Your task to perform on an android device: check out phone information Image 0: 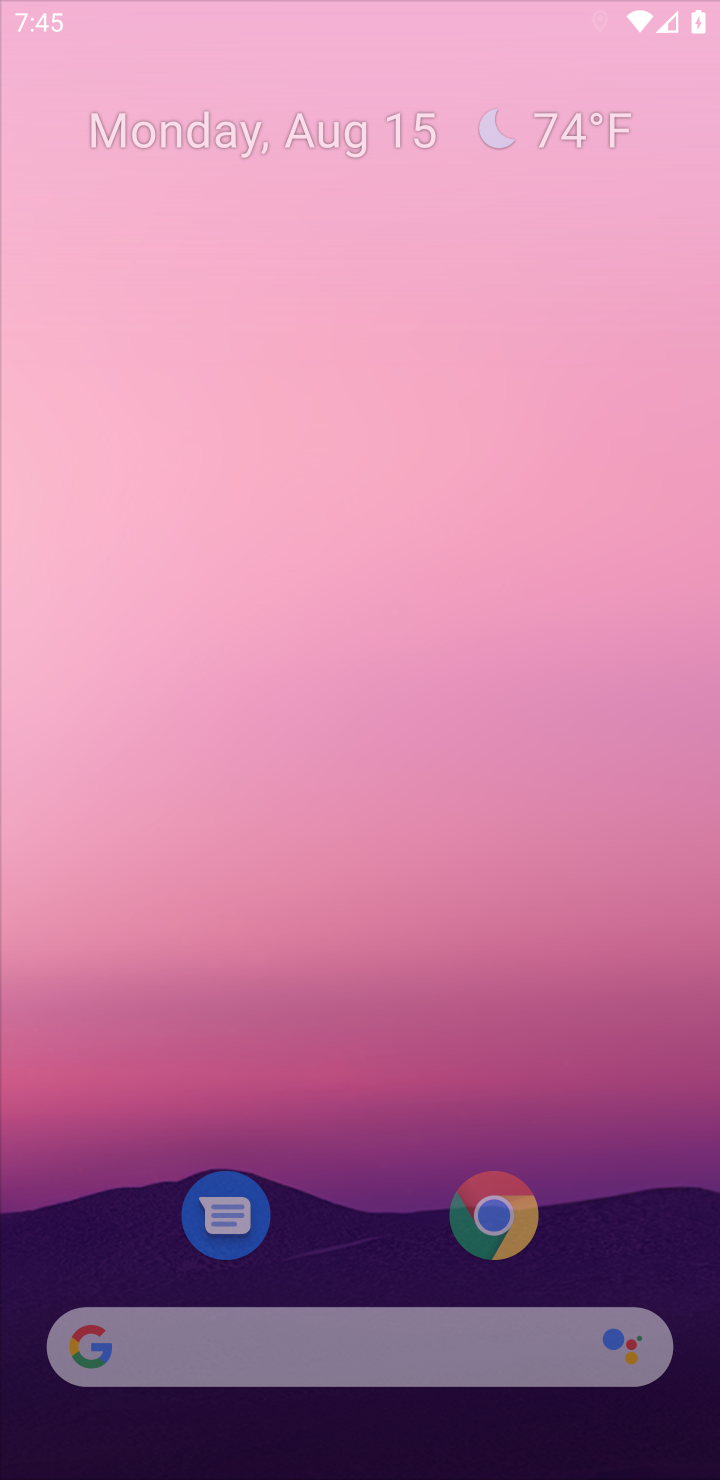
Step 0: press home button
Your task to perform on an android device: check out phone information Image 1: 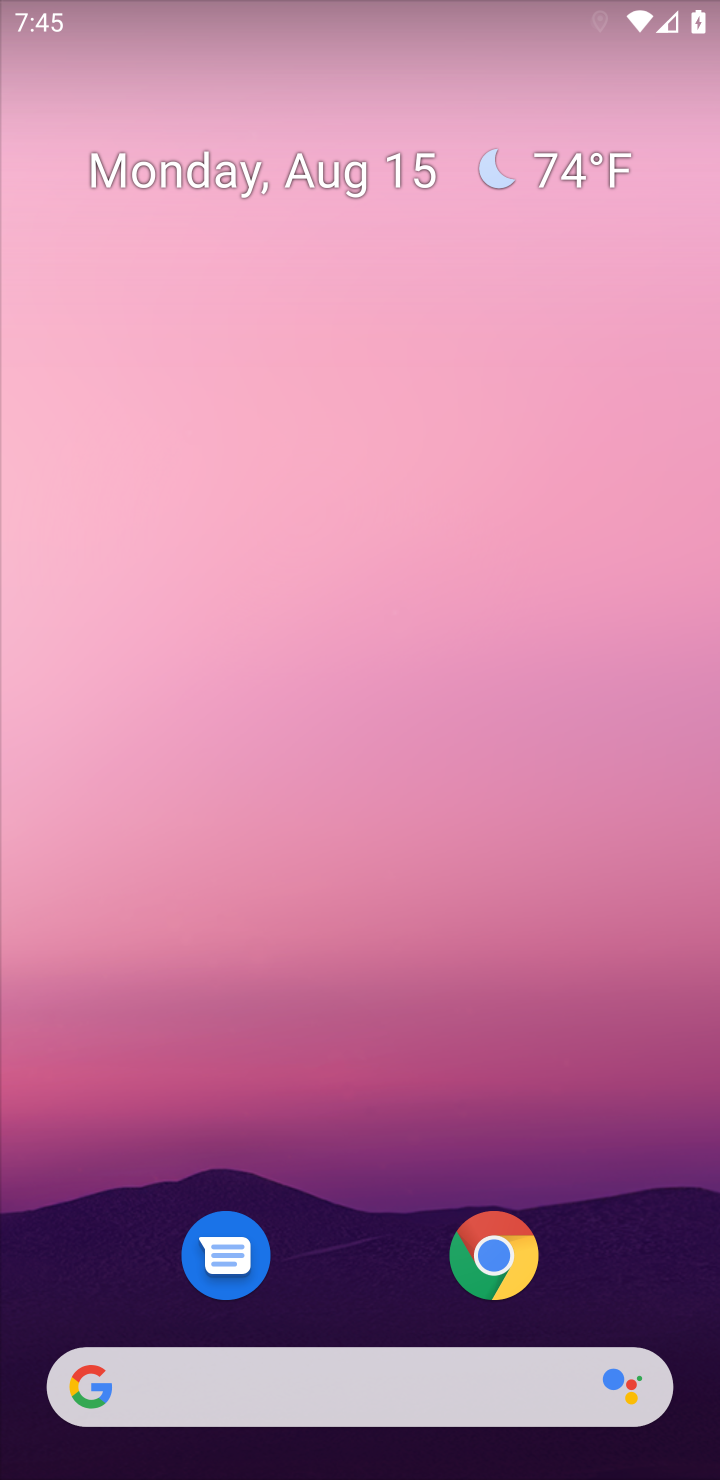
Step 1: drag from (366, 1232) to (352, 228)
Your task to perform on an android device: check out phone information Image 2: 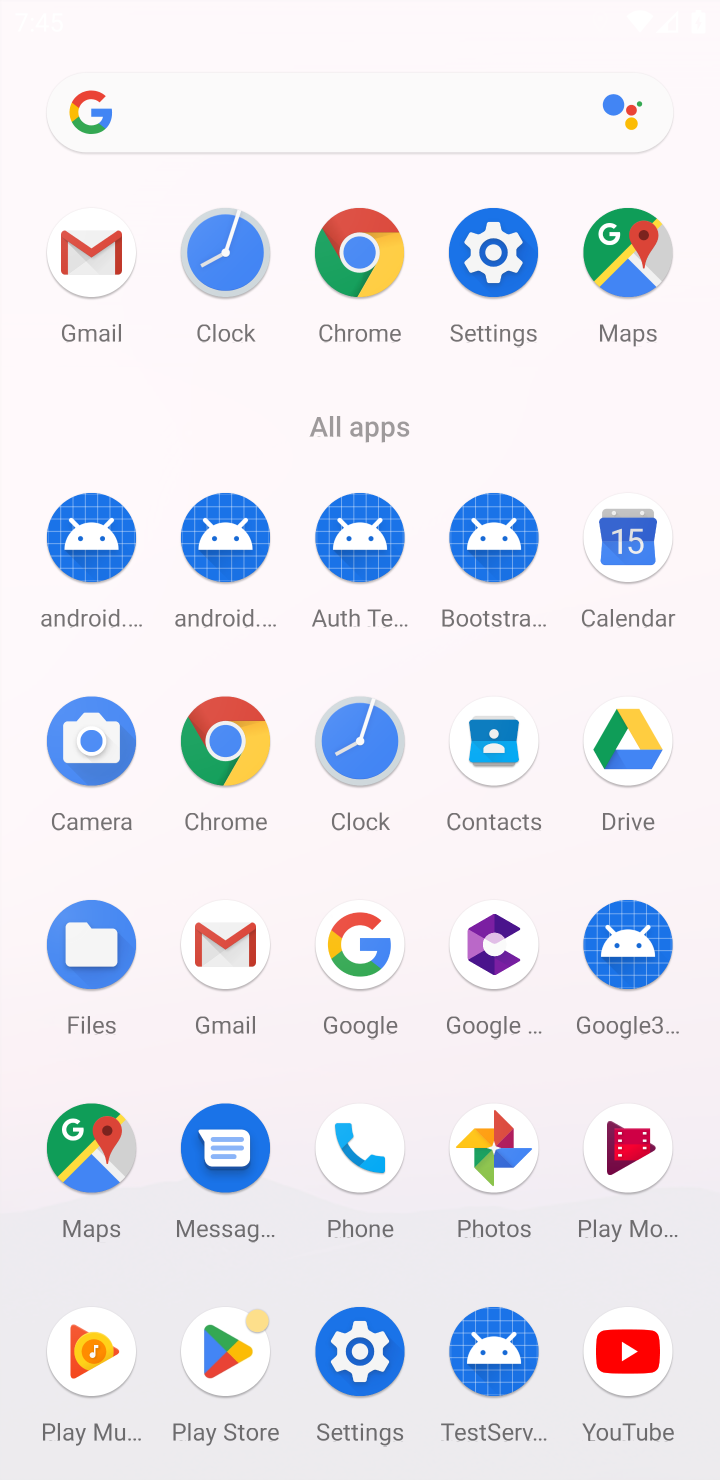
Step 2: click (490, 236)
Your task to perform on an android device: check out phone information Image 3: 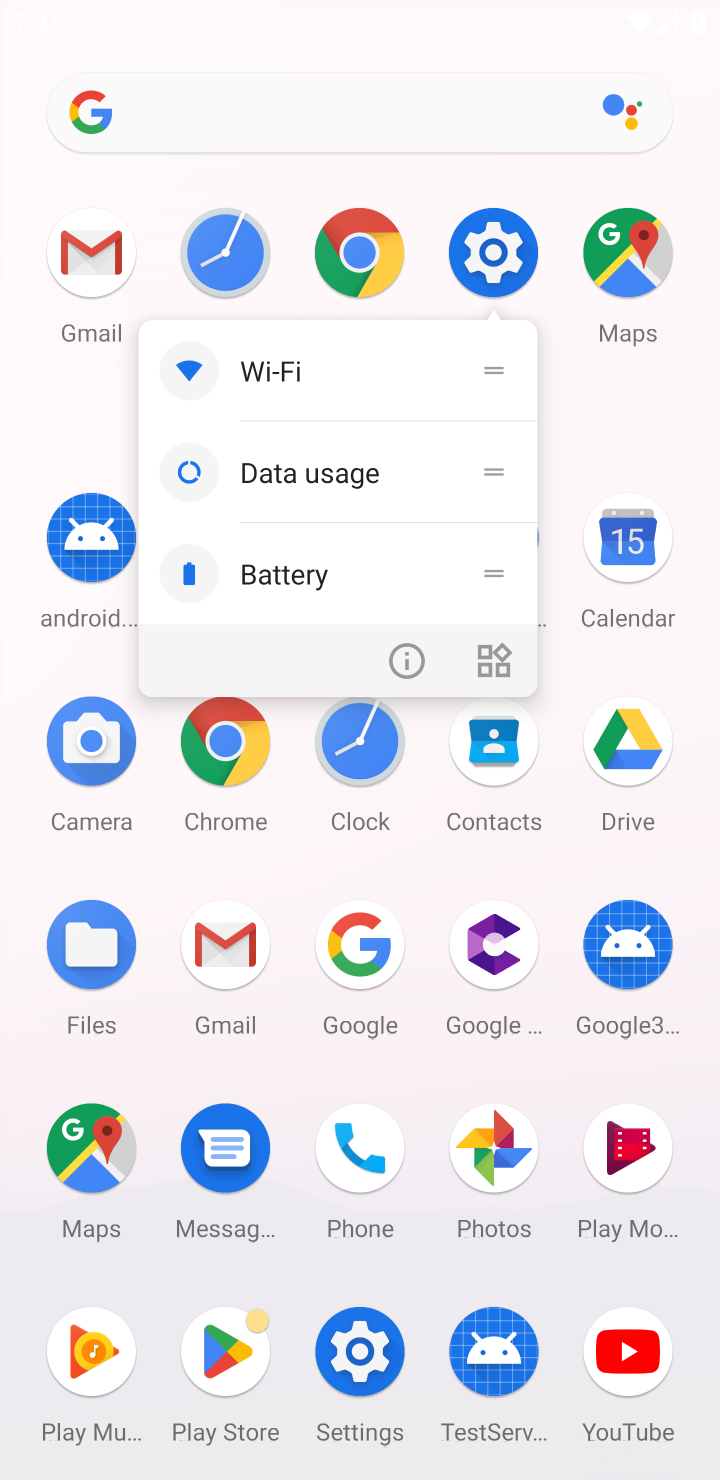
Step 3: click (489, 248)
Your task to perform on an android device: check out phone information Image 4: 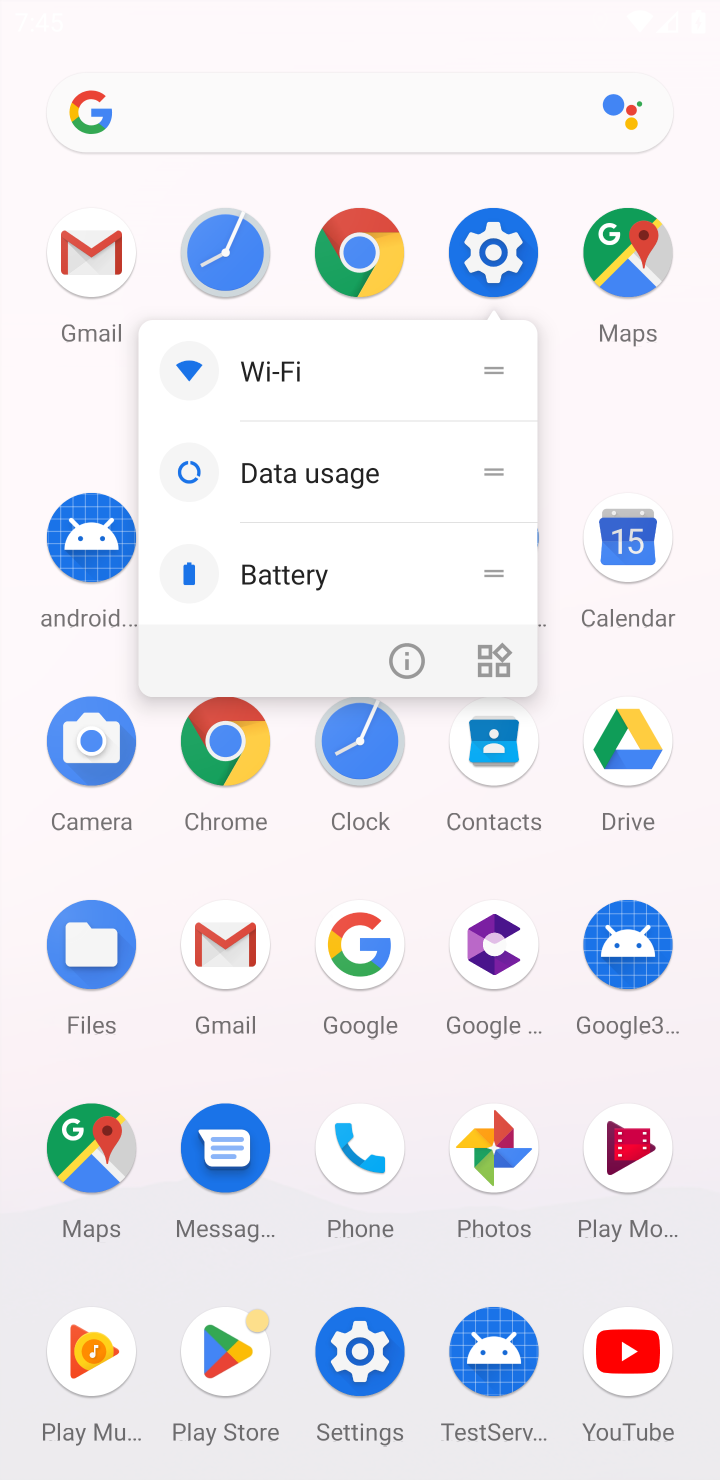
Step 4: click (481, 253)
Your task to perform on an android device: check out phone information Image 5: 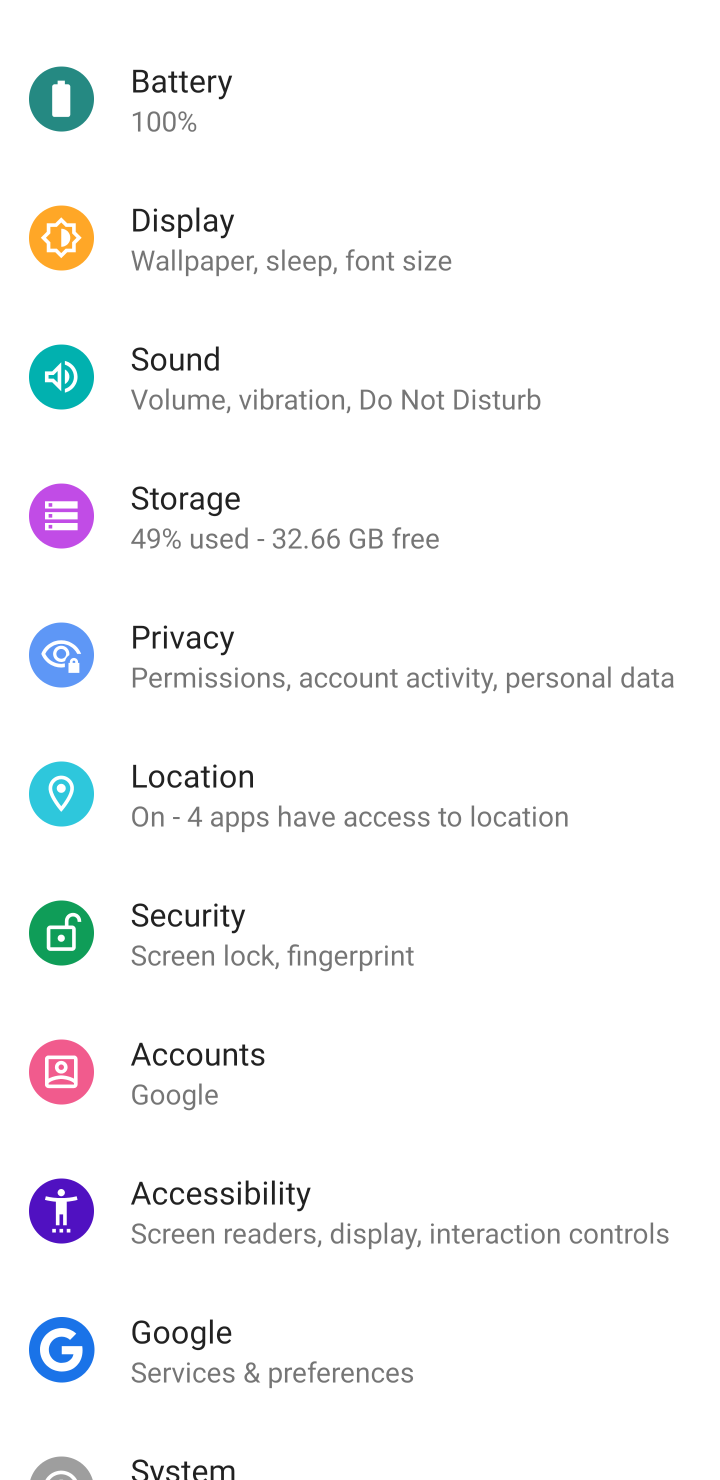
Step 5: drag from (383, 1325) to (401, 339)
Your task to perform on an android device: check out phone information Image 6: 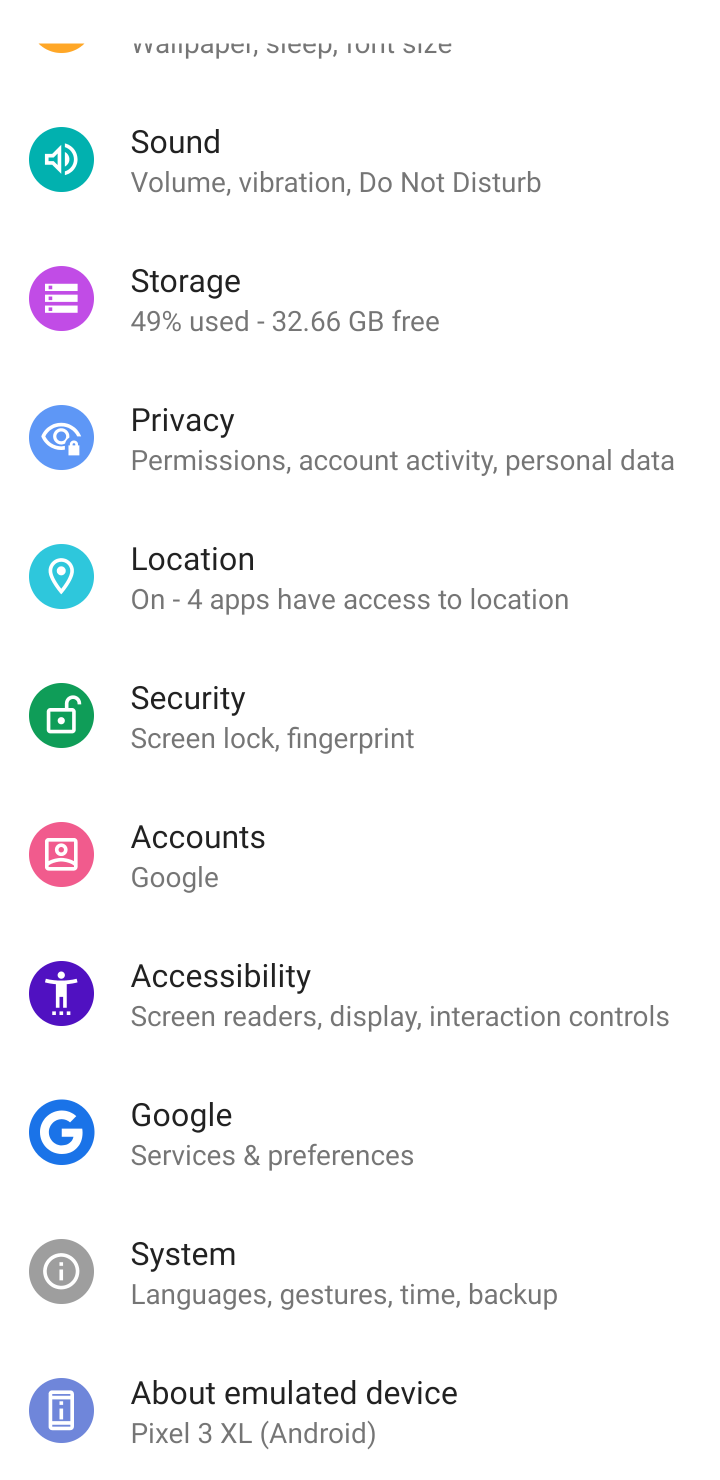
Step 6: click (399, 1426)
Your task to perform on an android device: check out phone information Image 7: 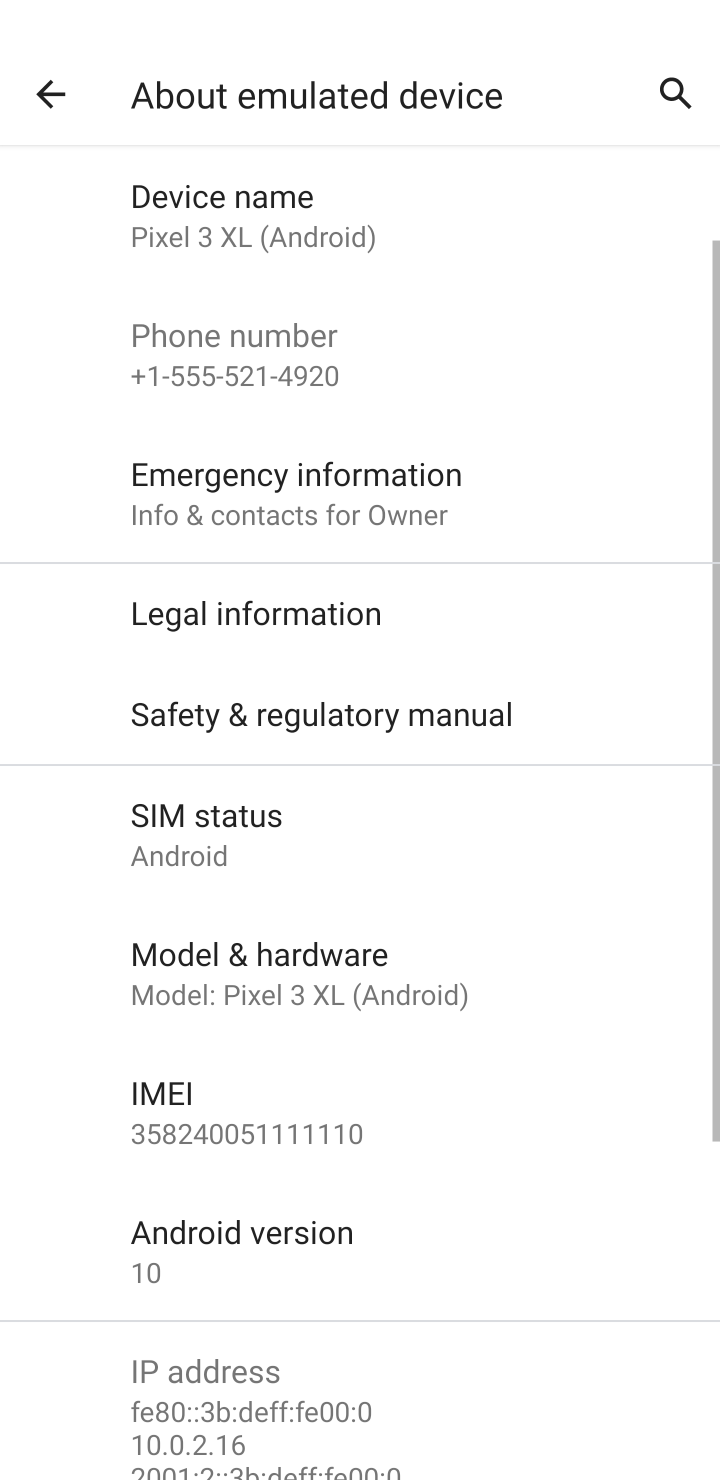
Step 7: task complete